Your task to perform on an android device: What's on my calendar tomorrow? Image 0: 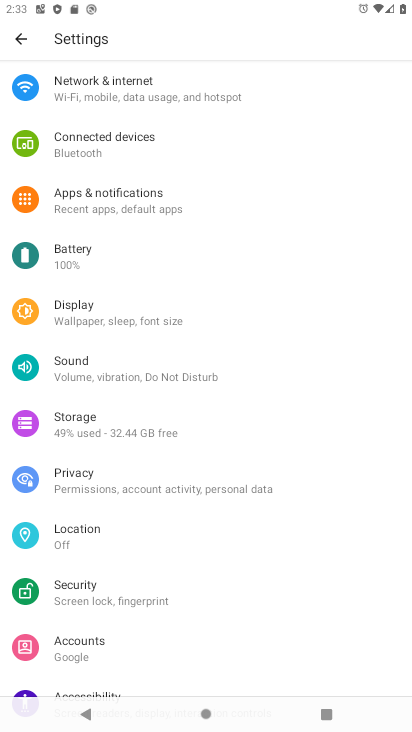
Step 0: press home button
Your task to perform on an android device: What's on my calendar tomorrow? Image 1: 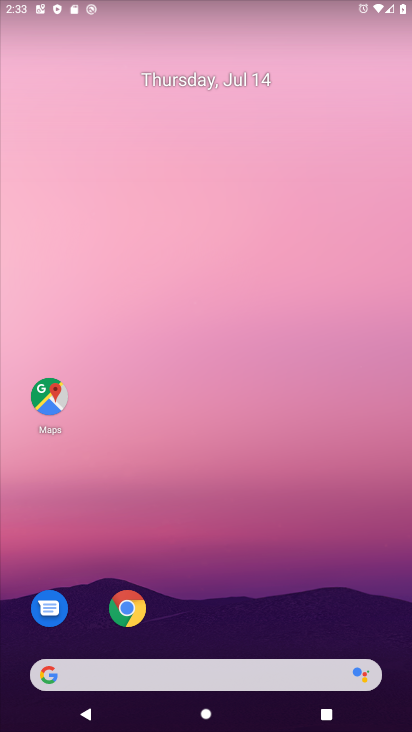
Step 1: drag from (240, 675) to (249, 150)
Your task to perform on an android device: What's on my calendar tomorrow? Image 2: 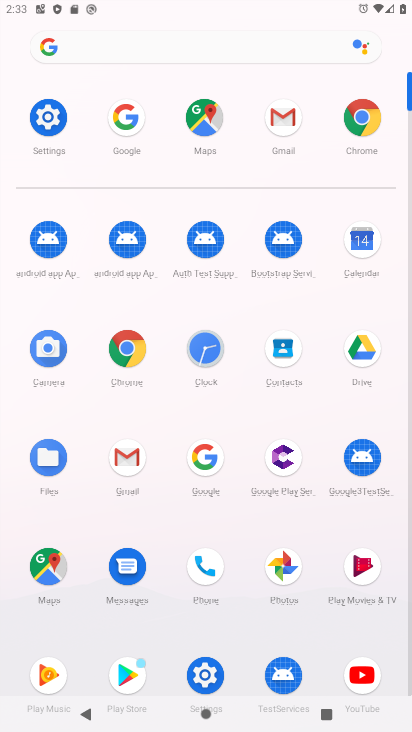
Step 2: click (352, 242)
Your task to perform on an android device: What's on my calendar tomorrow? Image 3: 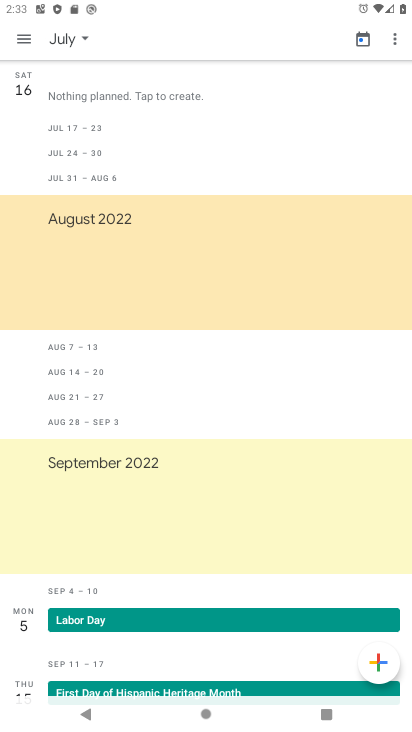
Step 3: click (73, 36)
Your task to perform on an android device: What's on my calendar tomorrow? Image 4: 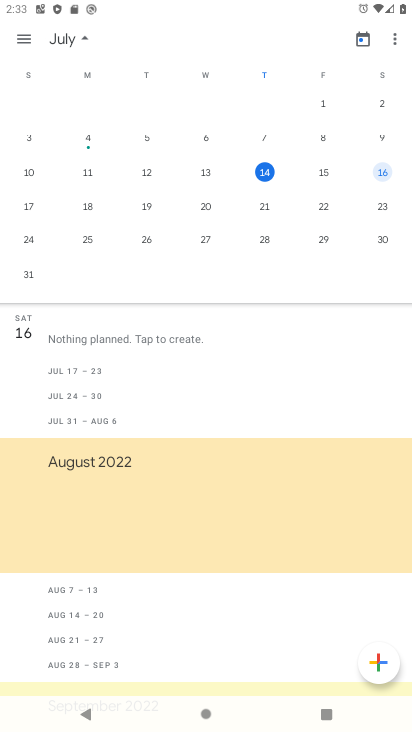
Step 4: click (323, 171)
Your task to perform on an android device: What's on my calendar tomorrow? Image 5: 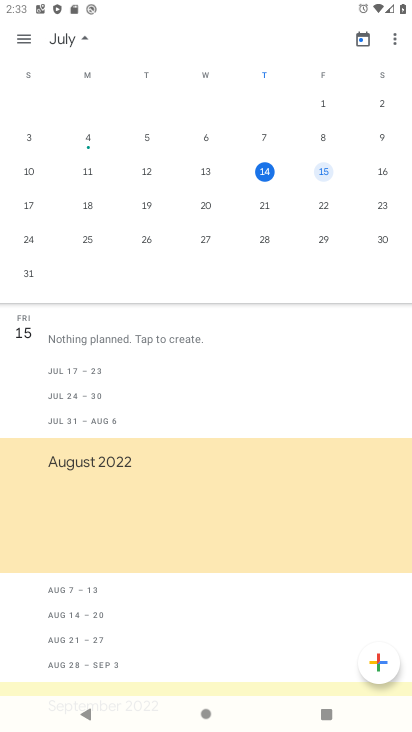
Step 5: click (323, 171)
Your task to perform on an android device: What's on my calendar tomorrow? Image 6: 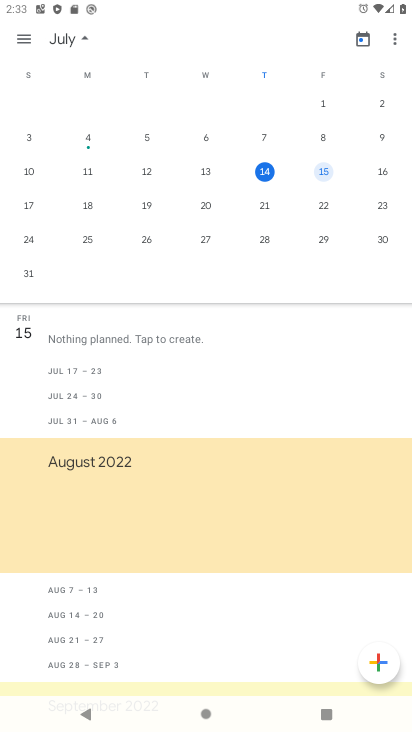
Step 6: click (46, 338)
Your task to perform on an android device: What's on my calendar tomorrow? Image 7: 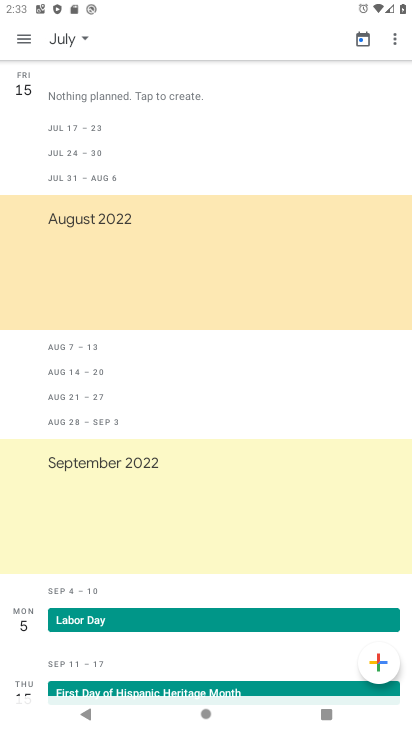
Step 7: task complete